Your task to perform on an android device: install app "Google Chrome" Image 0: 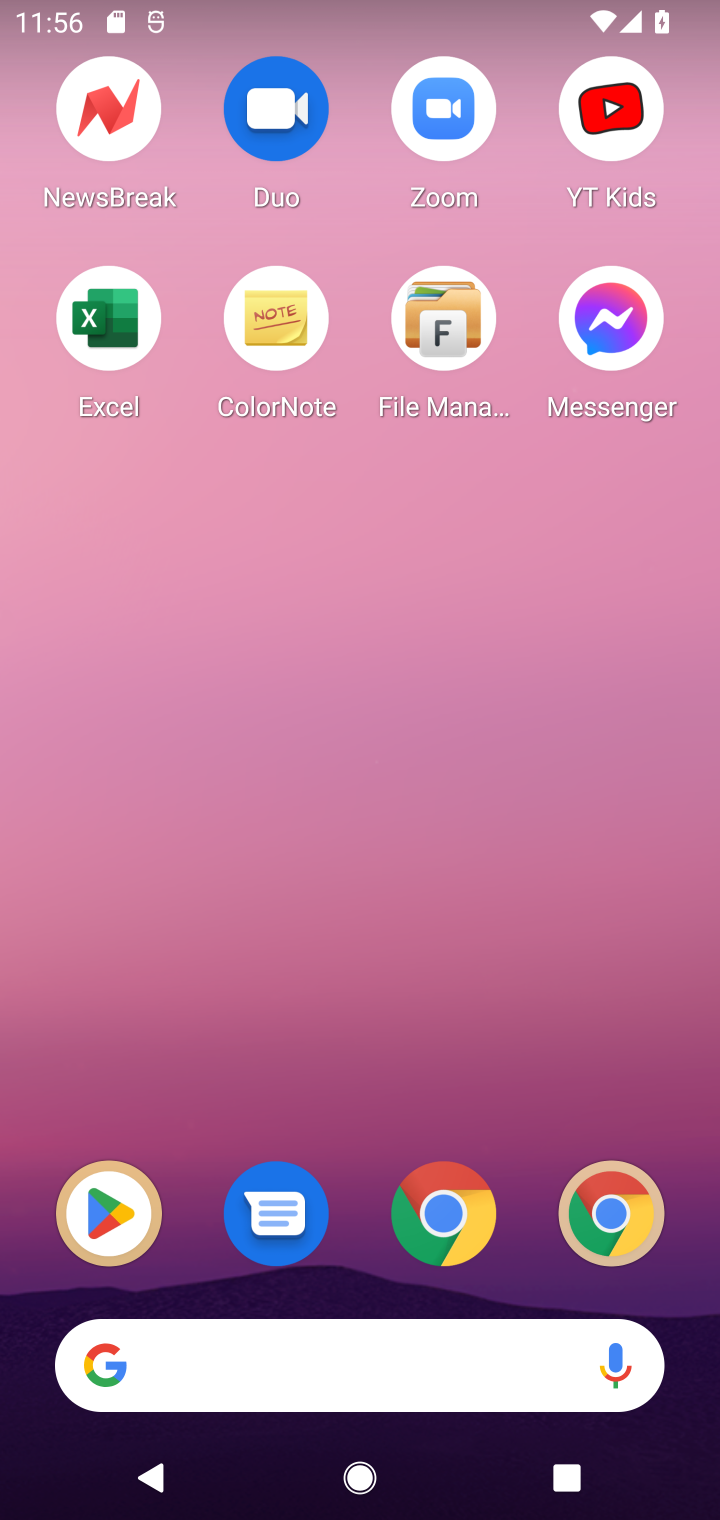
Step 0: click (439, 1216)
Your task to perform on an android device: install app "Google Chrome" Image 1: 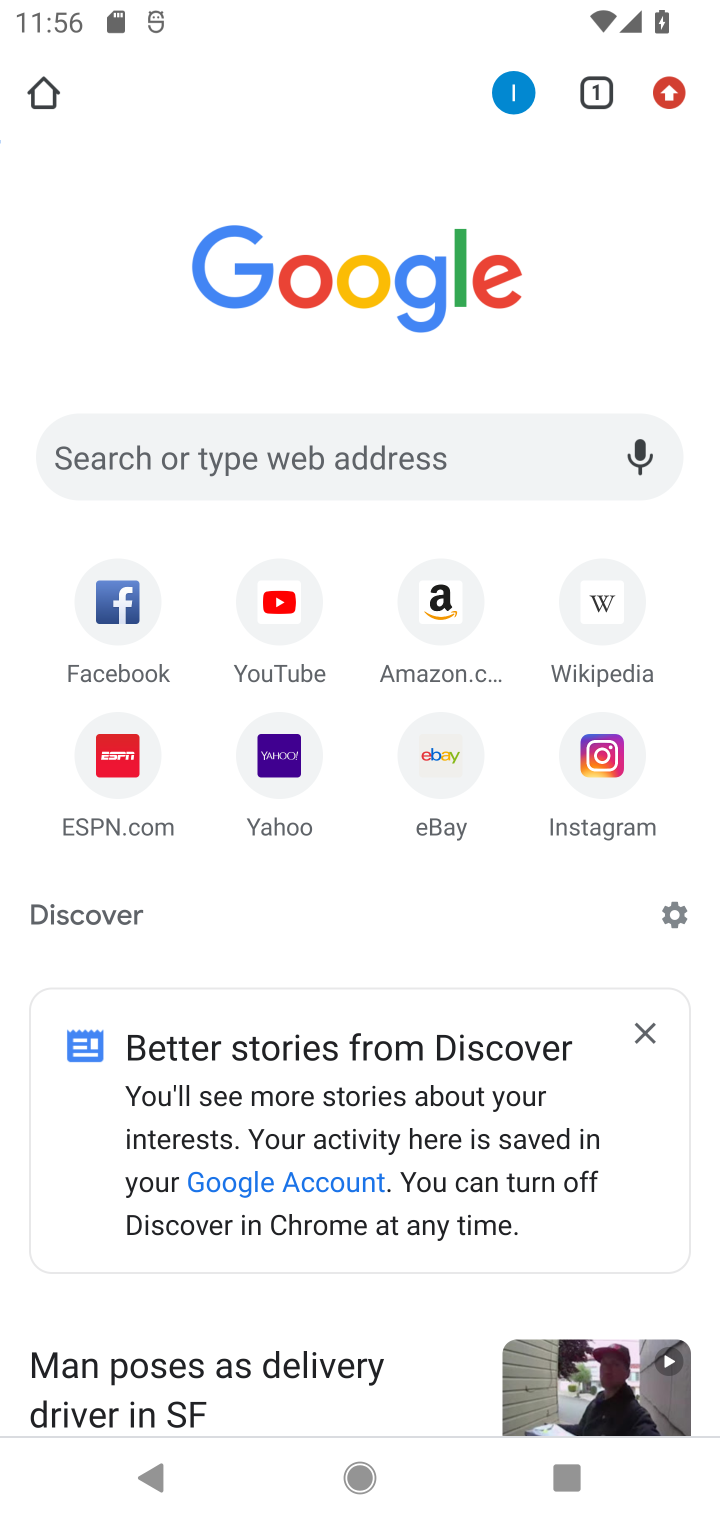
Step 1: task complete